Your task to perform on an android device: turn on the 24-hour format for clock Image 0: 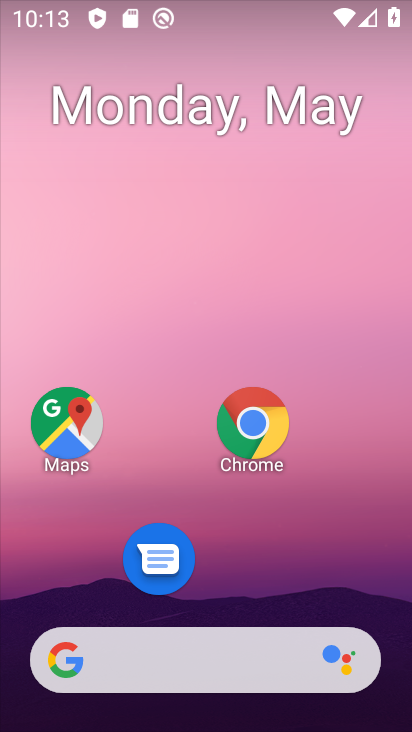
Step 0: drag from (227, 576) to (250, 68)
Your task to perform on an android device: turn on the 24-hour format for clock Image 1: 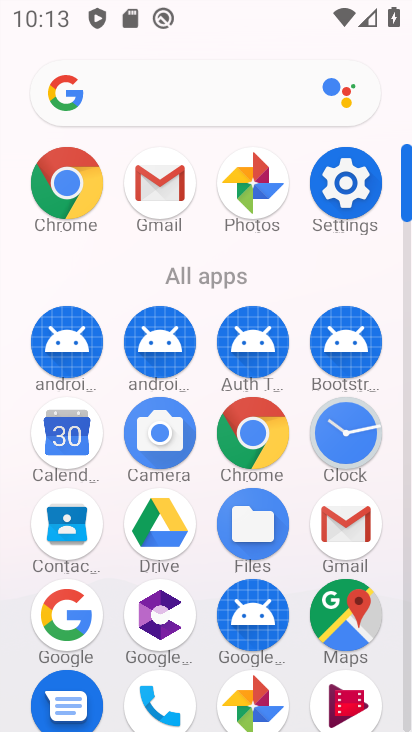
Step 1: click (343, 416)
Your task to perform on an android device: turn on the 24-hour format for clock Image 2: 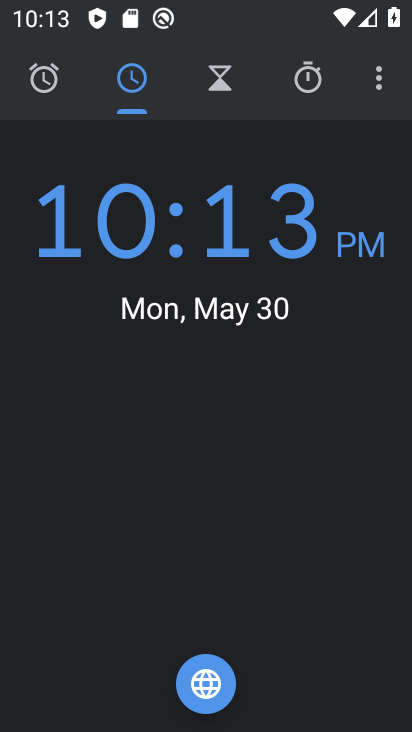
Step 2: click (387, 70)
Your task to perform on an android device: turn on the 24-hour format for clock Image 3: 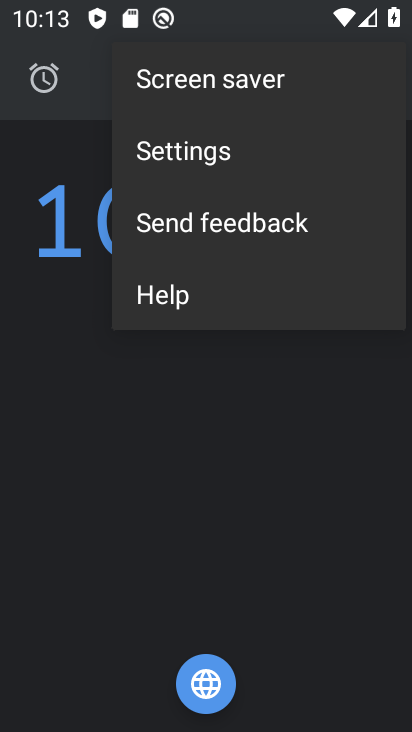
Step 3: click (190, 173)
Your task to perform on an android device: turn on the 24-hour format for clock Image 4: 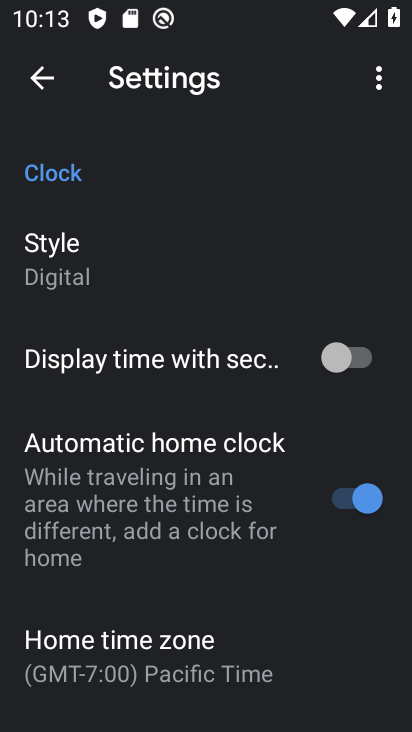
Step 4: drag from (193, 631) to (221, 225)
Your task to perform on an android device: turn on the 24-hour format for clock Image 5: 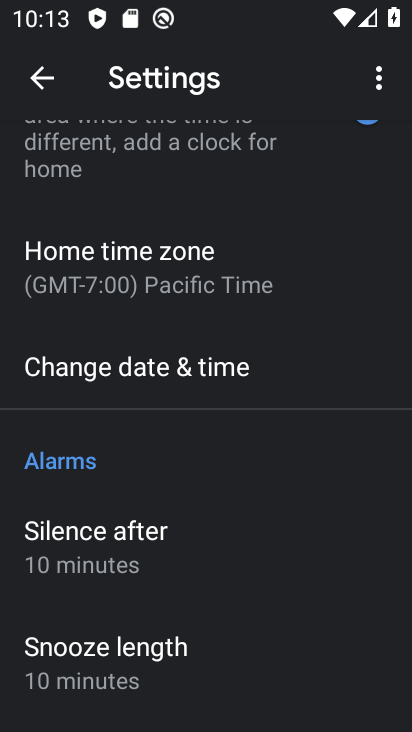
Step 5: click (190, 353)
Your task to perform on an android device: turn on the 24-hour format for clock Image 6: 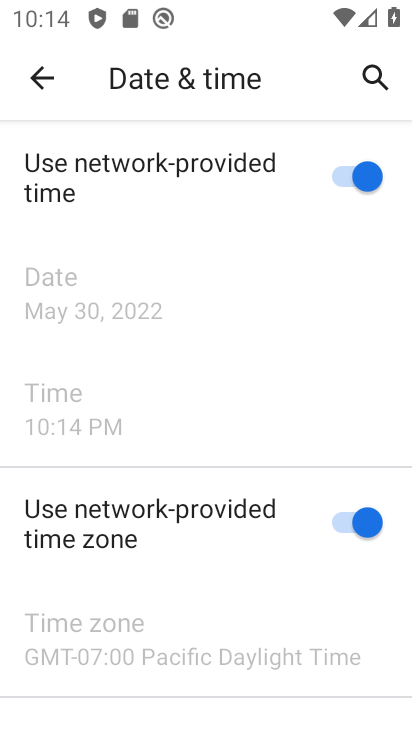
Step 6: drag from (166, 662) to (221, 219)
Your task to perform on an android device: turn on the 24-hour format for clock Image 7: 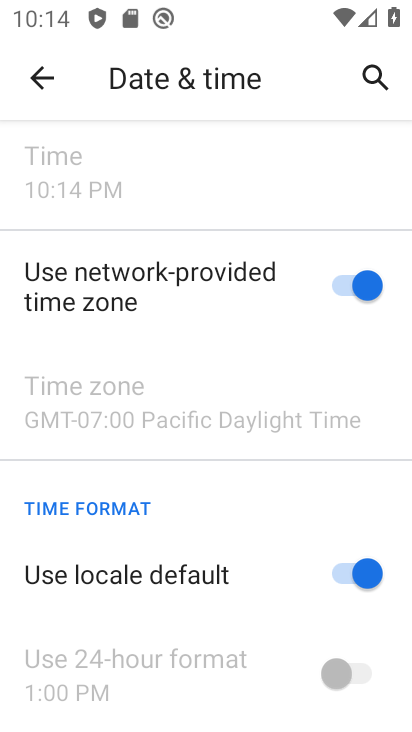
Step 7: click (349, 575)
Your task to perform on an android device: turn on the 24-hour format for clock Image 8: 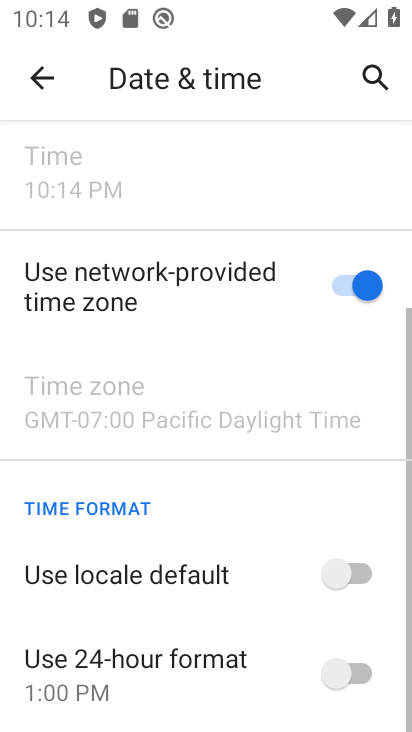
Step 8: click (349, 673)
Your task to perform on an android device: turn on the 24-hour format for clock Image 9: 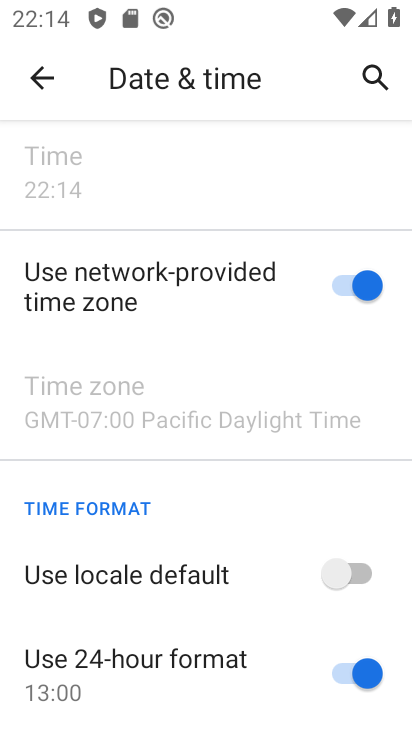
Step 9: task complete